Your task to perform on an android device: install app "Google Calendar" Image 0: 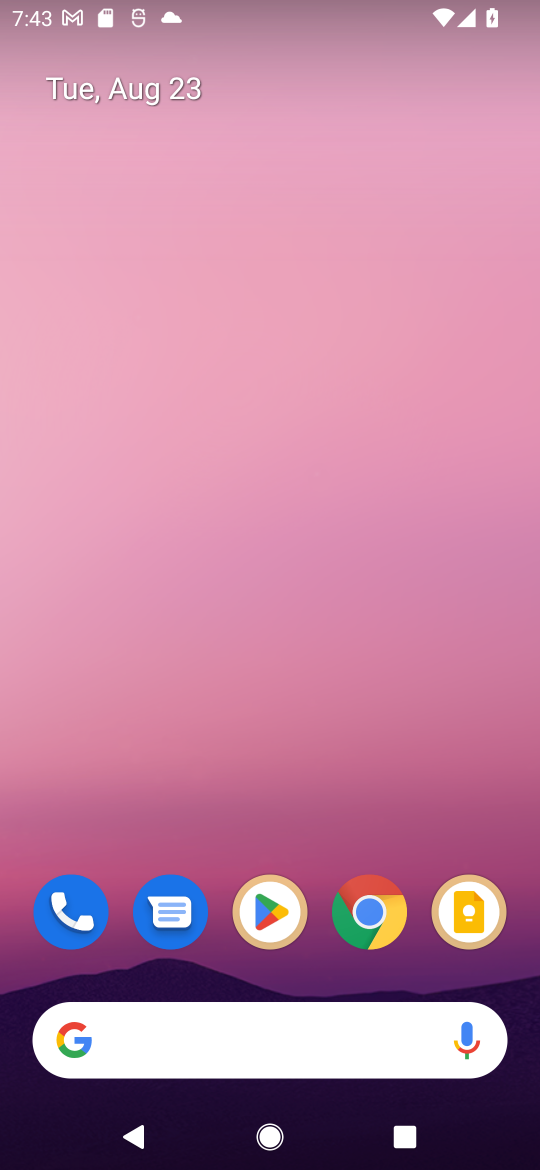
Step 0: click (267, 914)
Your task to perform on an android device: install app "Google Calendar" Image 1: 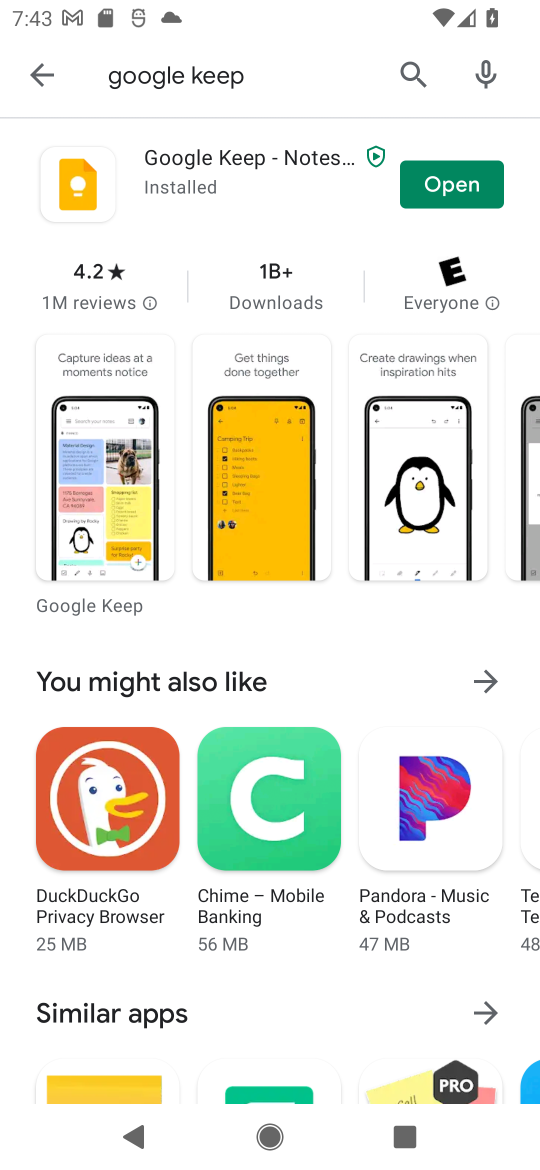
Step 1: click (414, 69)
Your task to perform on an android device: install app "Google Calendar" Image 2: 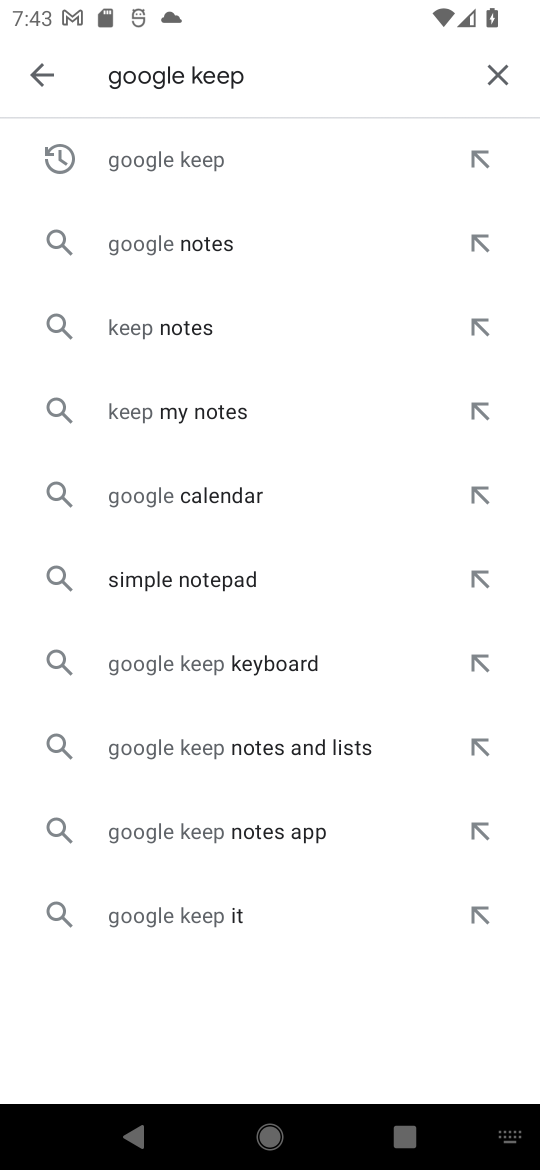
Step 2: click (490, 65)
Your task to perform on an android device: install app "Google Calendar" Image 3: 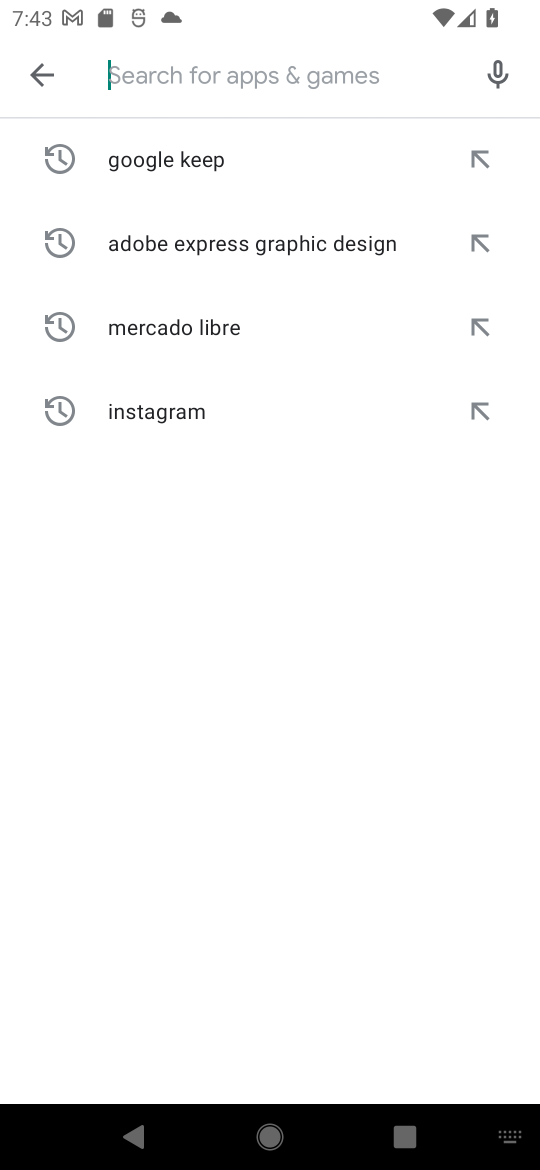
Step 3: type "Google Calendar"
Your task to perform on an android device: install app "Google Calendar" Image 4: 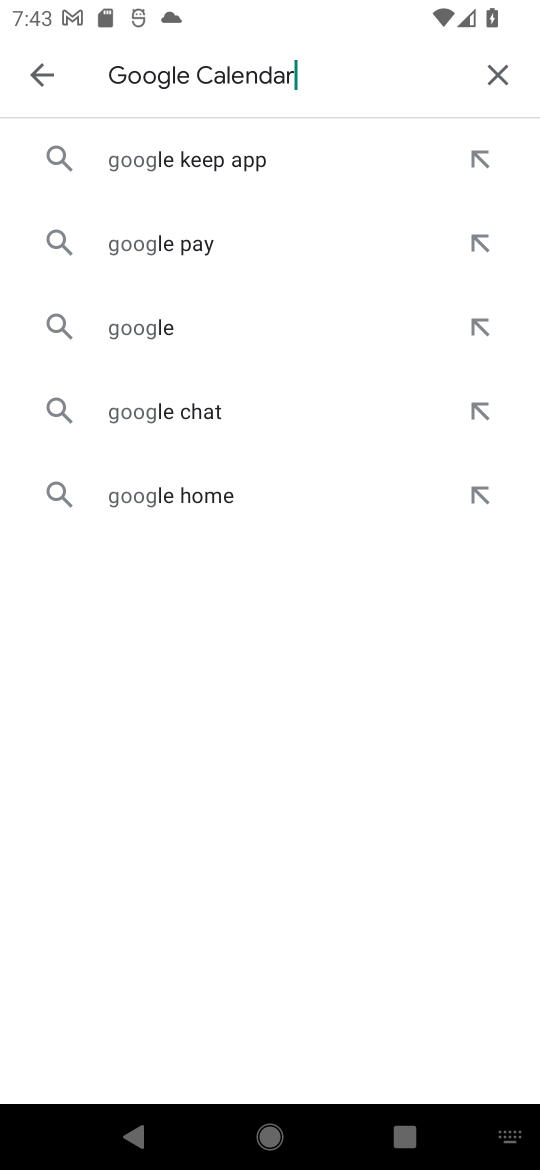
Step 4: type ""
Your task to perform on an android device: install app "Google Calendar" Image 5: 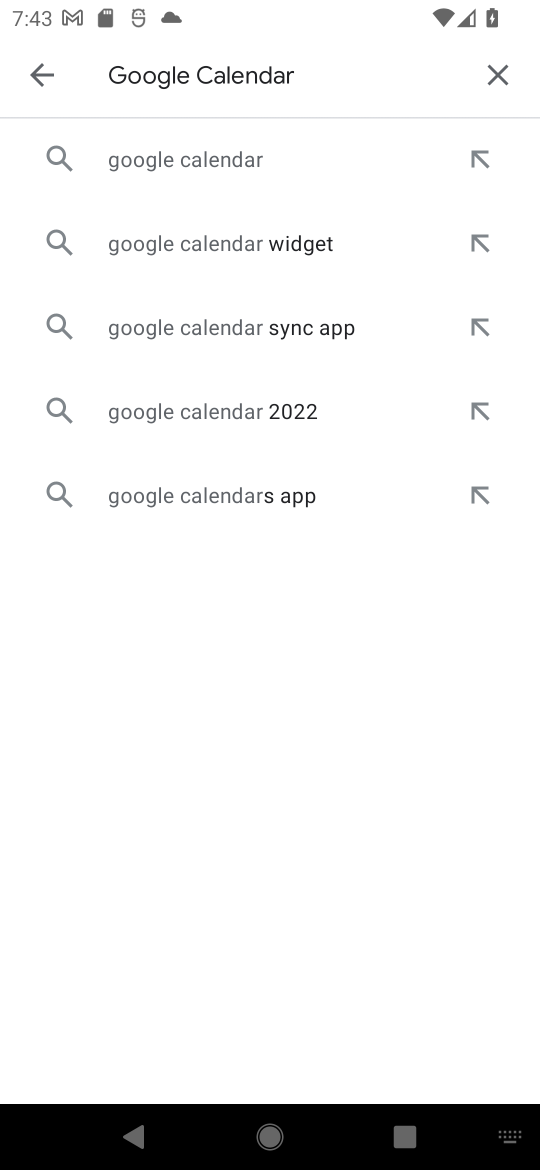
Step 5: click (156, 155)
Your task to perform on an android device: install app "Google Calendar" Image 6: 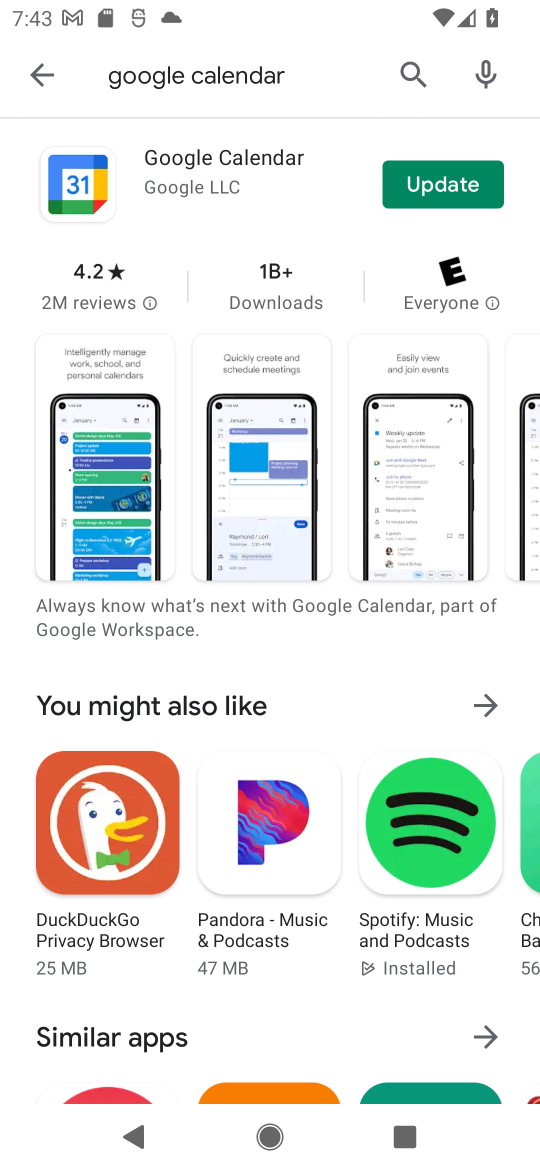
Step 6: task complete